Your task to perform on an android device: Open Google Chrome and click the shortcut for Amazon.com Image 0: 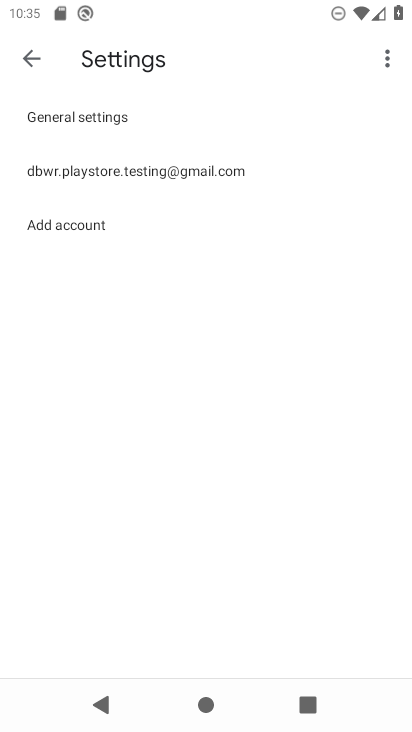
Step 0: press home button
Your task to perform on an android device: Open Google Chrome and click the shortcut for Amazon.com Image 1: 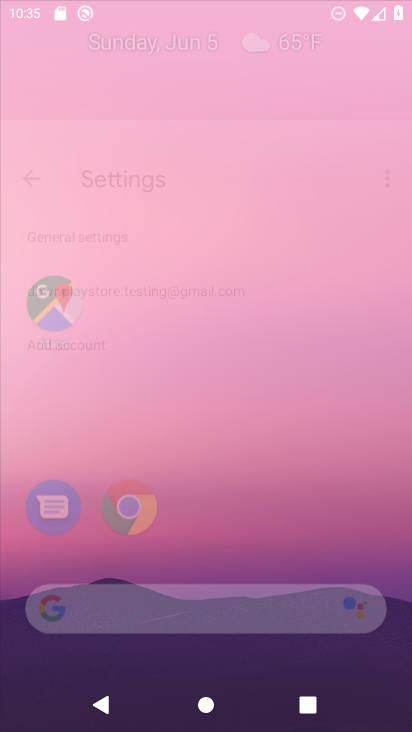
Step 1: drag from (153, 562) to (243, 84)
Your task to perform on an android device: Open Google Chrome and click the shortcut for Amazon.com Image 2: 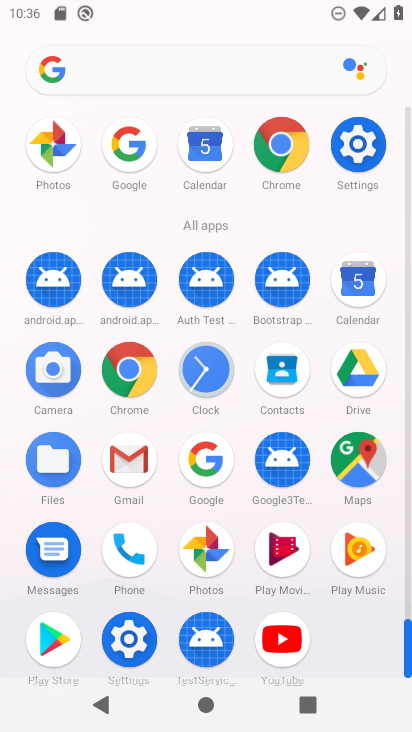
Step 2: click (279, 143)
Your task to perform on an android device: Open Google Chrome and click the shortcut for Amazon.com Image 3: 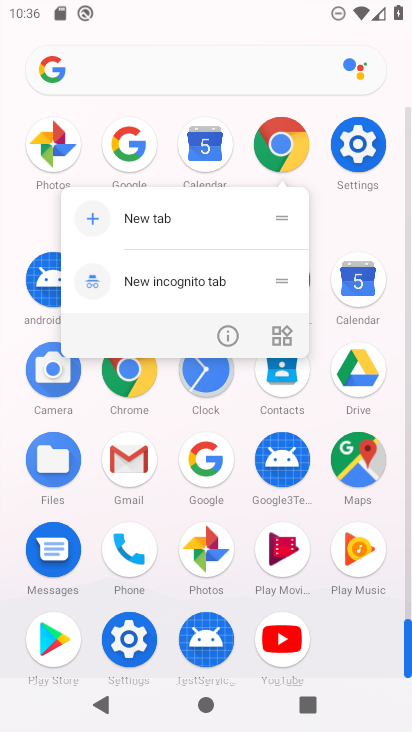
Step 3: click (225, 335)
Your task to perform on an android device: Open Google Chrome and click the shortcut for Amazon.com Image 4: 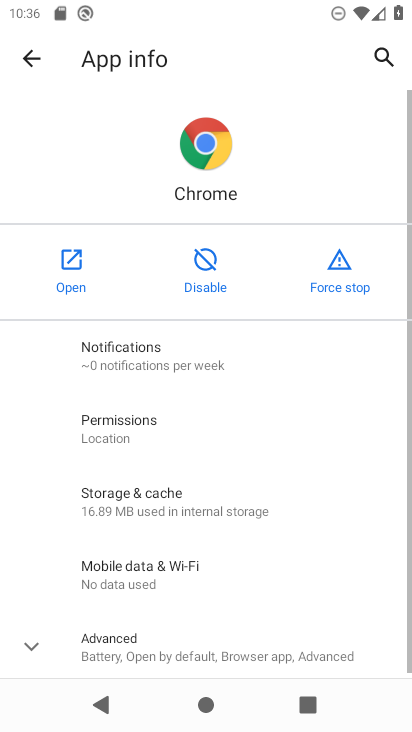
Step 4: click (63, 262)
Your task to perform on an android device: Open Google Chrome and click the shortcut for Amazon.com Image 5: 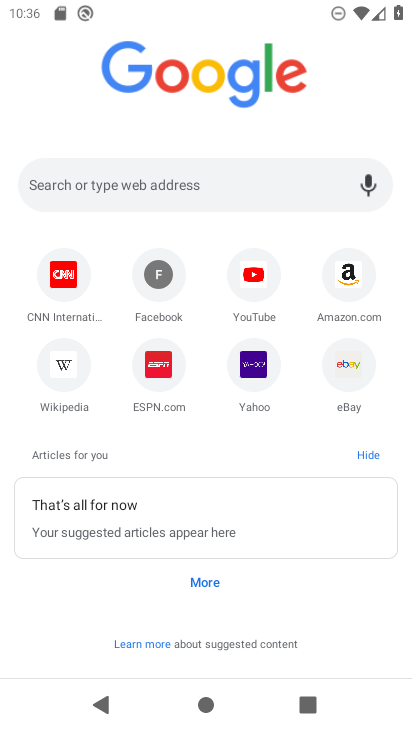
Step 5: drag from (292, 134) to (257, 383)
Your task to perform on an android device: Open Google Chrome and click the shortcut for Amazon.com Image 6: 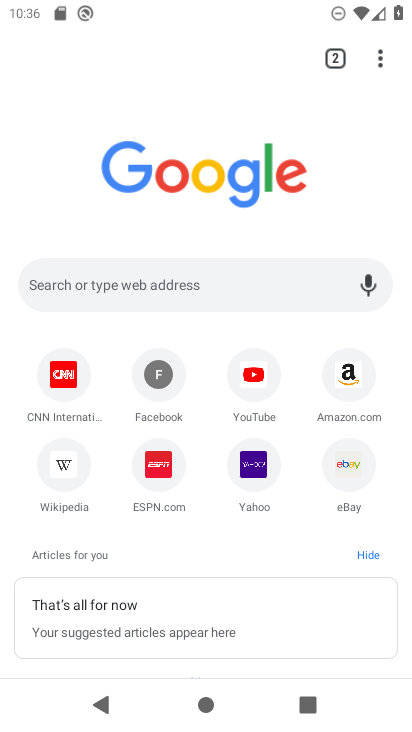
Step 6: click (356, 394)
Your task to perform on an android device: Open Google Chrome and click the shortcut for Amazon.com Image 7: 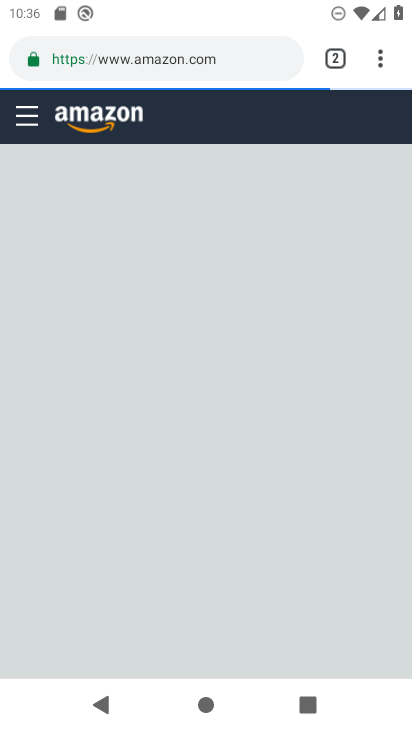
Step 7: task complete